Your task to perform on an android device: delete location history Image 0: 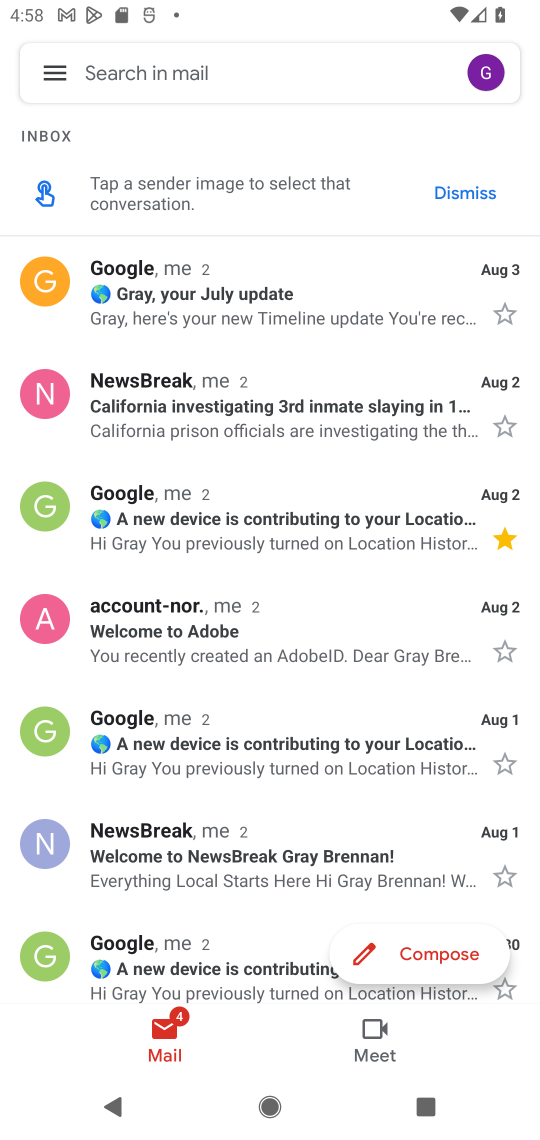
Step 0: press home button
Your task to perform on an android device: delete location history Image 1: 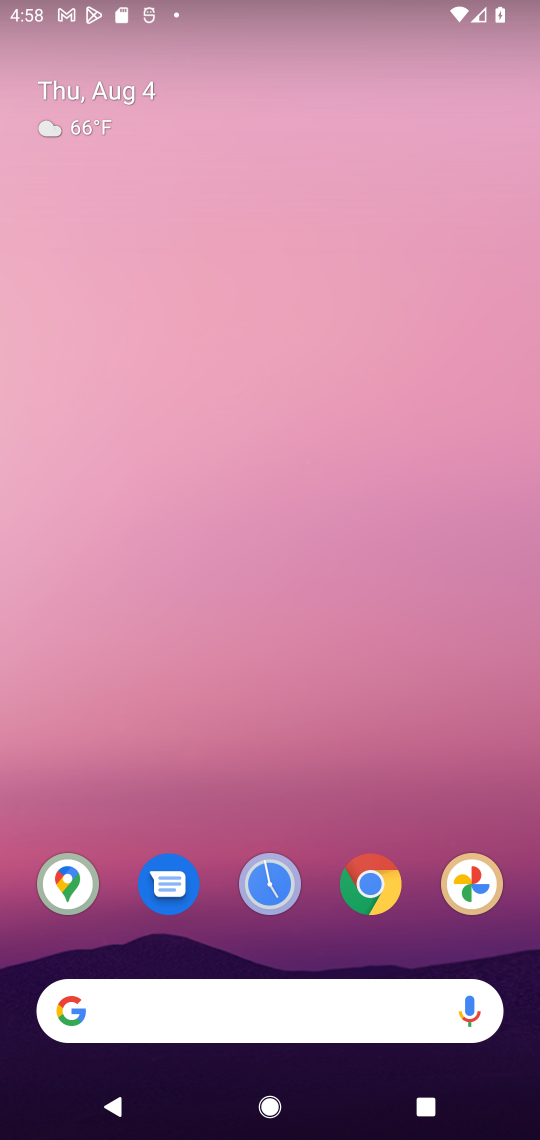
Step 1: drag from (224, 958) to (137, 116)
Your task to perform on an android device: delete location history Image 2: 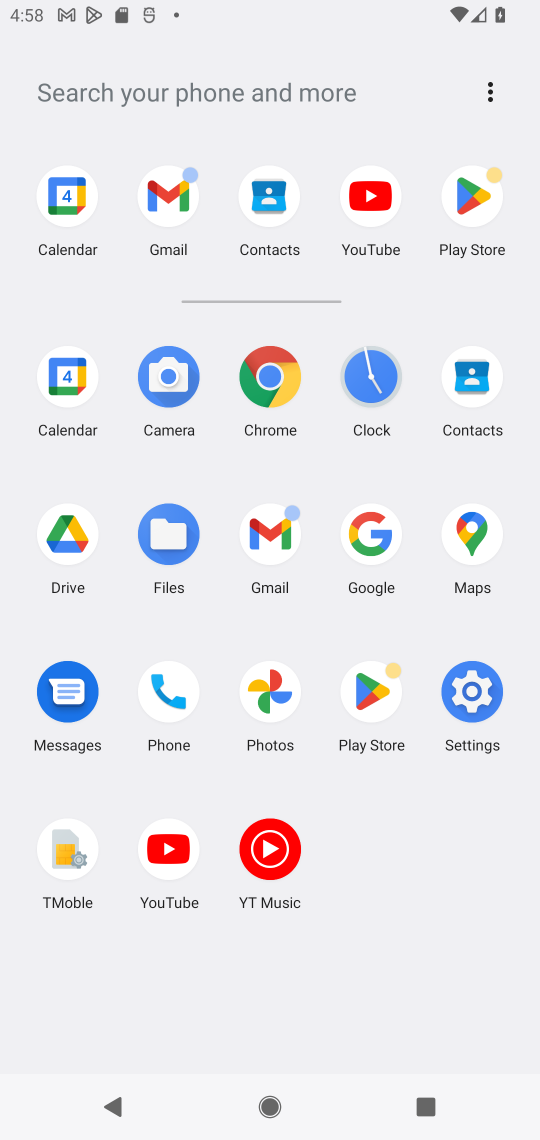
Step 2: click (500, 677)
Your task to perform on an android device: delete location history Image 3: 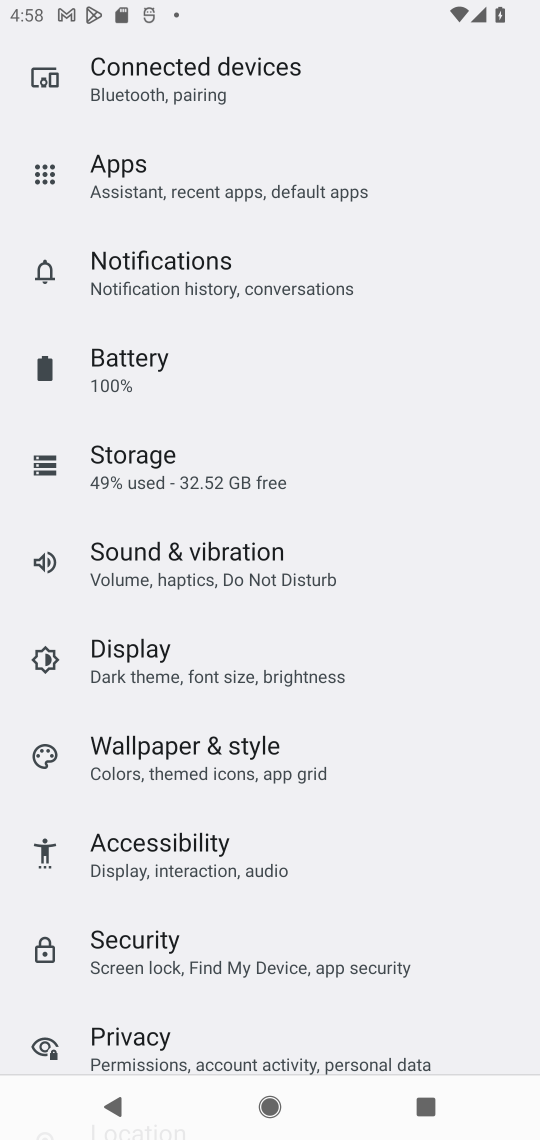
Step 3: drag from (223, 995) to (256, 441)
Your task to perform on an android device: delete location history Image 4: 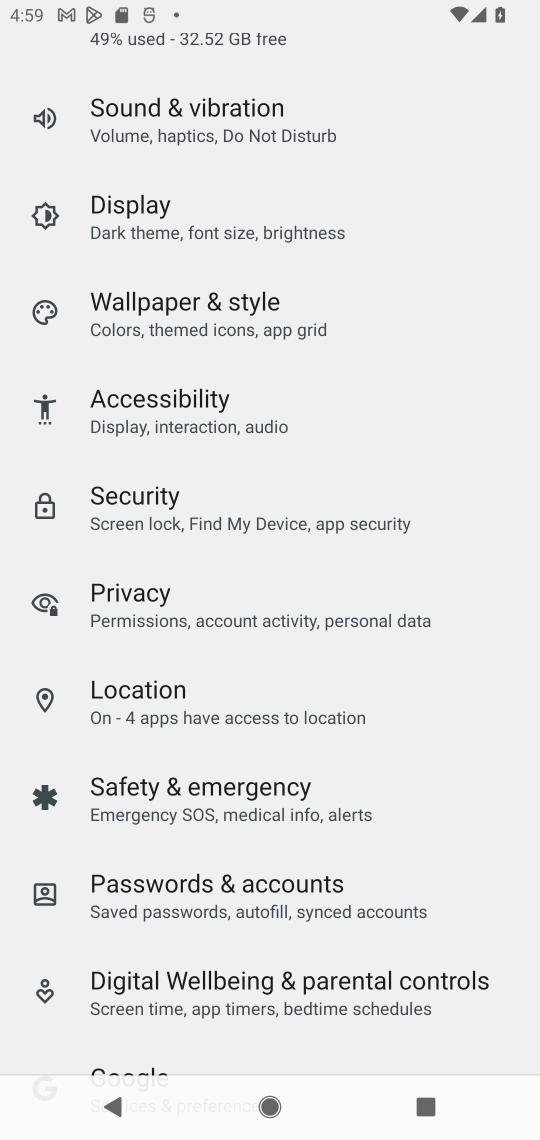
Step 4: click (209, 856)
Your task to perform on an android device: delete location history Image 5: 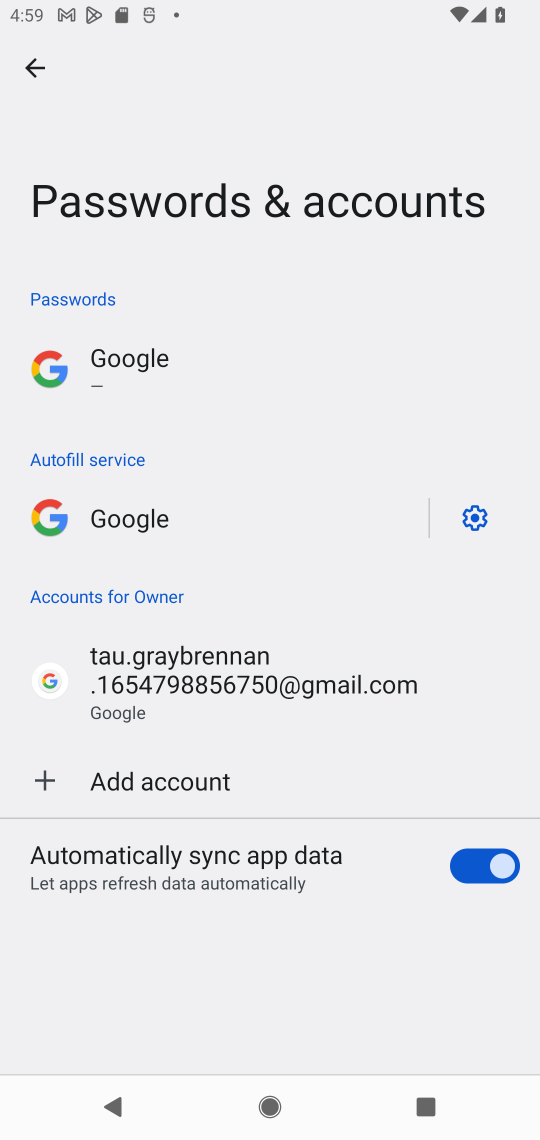
Step 5: task complete